Your task to perform on an android device: open a bookmark in the chrome app Image 0: 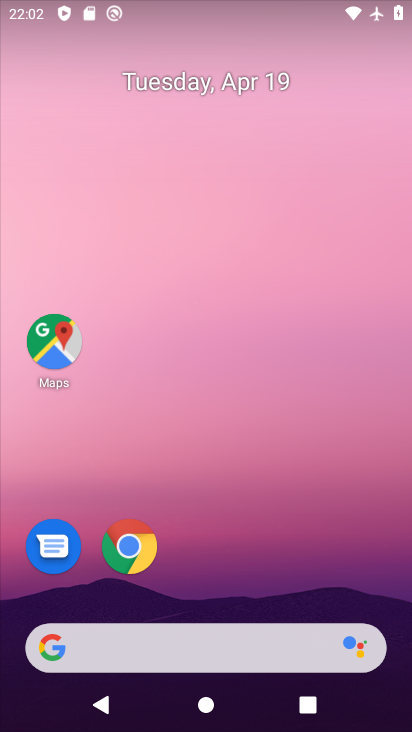
Step 0: click (128, 548)
Your task to perform on an android device: open a bookmark in the chrome app Image 1: 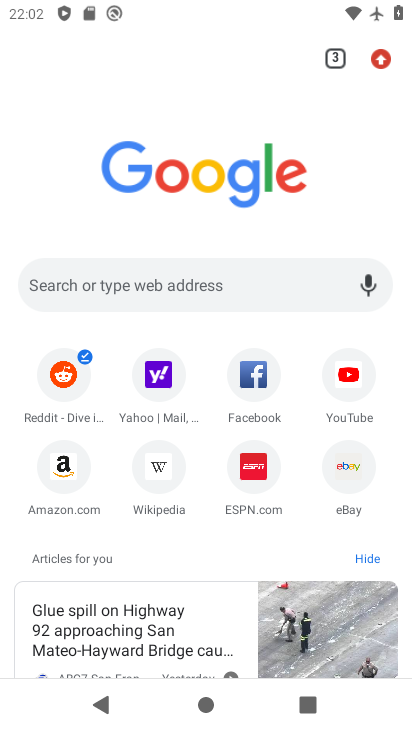
Step 1: click (379, 61)
Your task to perform on an android device: open a bookmark in the chrome app Image 2: 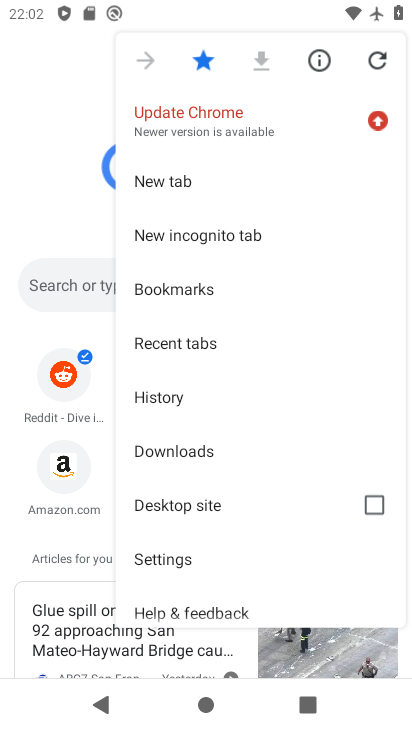
Step 2: click (192, 275)
Your task to perform on an android device: open a bookmark in the chrome app Image 3: 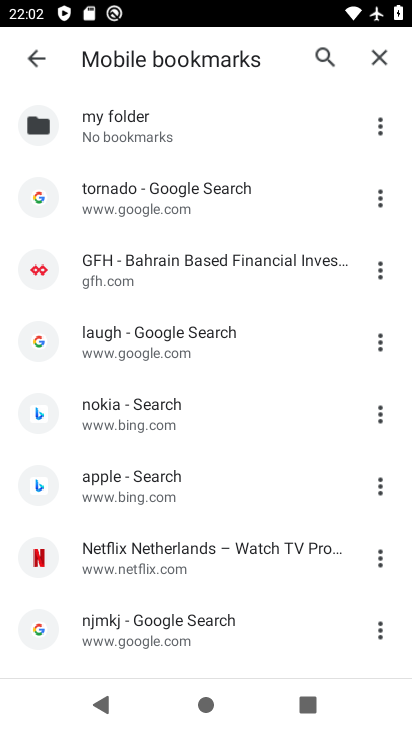
Step 3: task complete